Your task to perform on an android device: turn off translation in the chrome app Image 0: 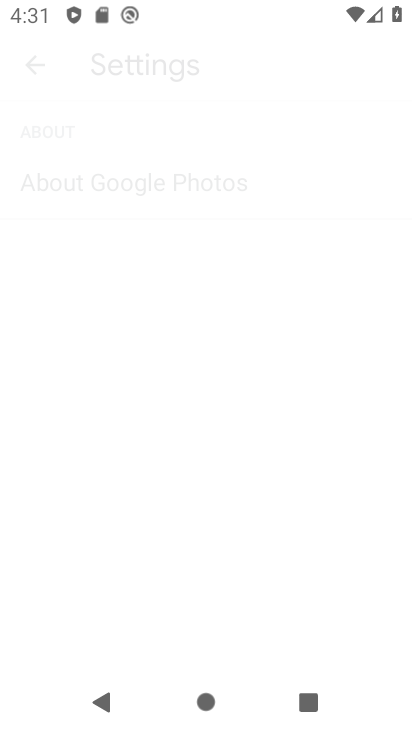
Step 0: click (65, 392)
Your task to perform on an android device: turn off translation in the chrome app Image 1: 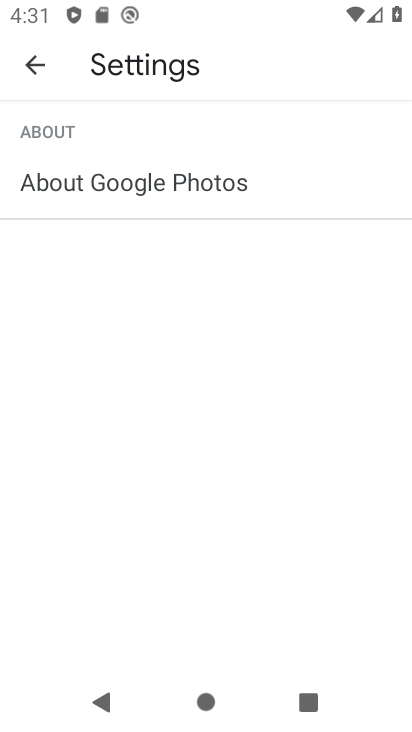
Step 1: press home button
Your task to perform on an android device: turn off translation in the chrome app Image 2: 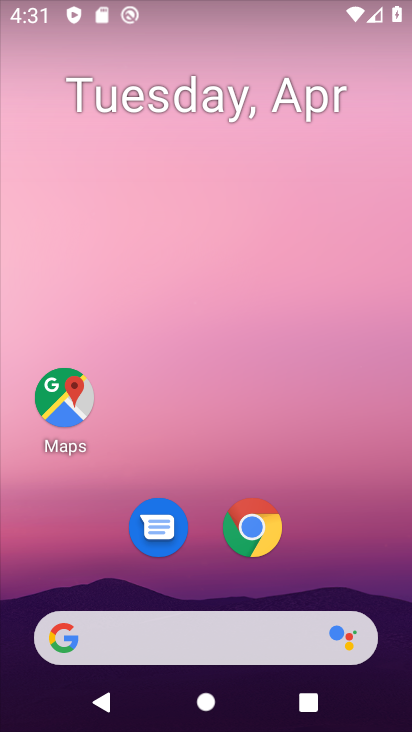
Step 2: click (223, 521)
Your task to perform on an android device: turn off translation in the chrome app Image 3: 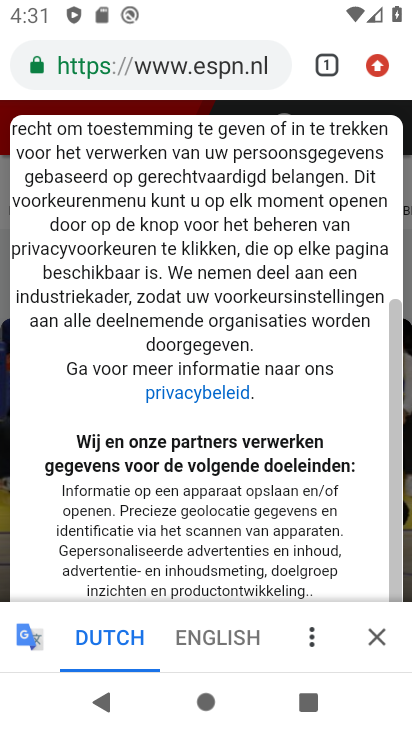
Step 3: click (383, 71)
Your task to perform on an android device: turn off translation in the chrome app Image 4: 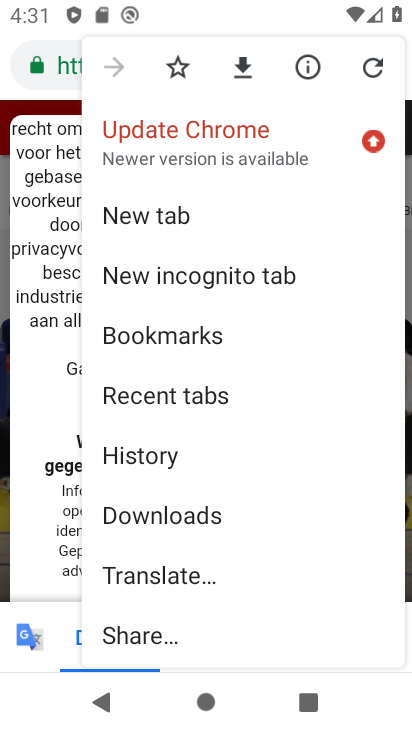
Step 4: drag from (262, 569) to (263, 57)
Your task to perform on an android device: turn off translation in the chrome app Image 5: 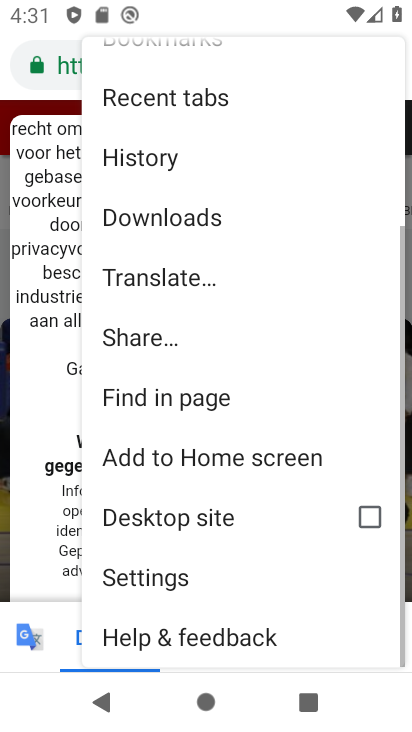
Step 5: click (237, 580)
Your task to perform on an android device: turn off translation in the chrome app Image 6: 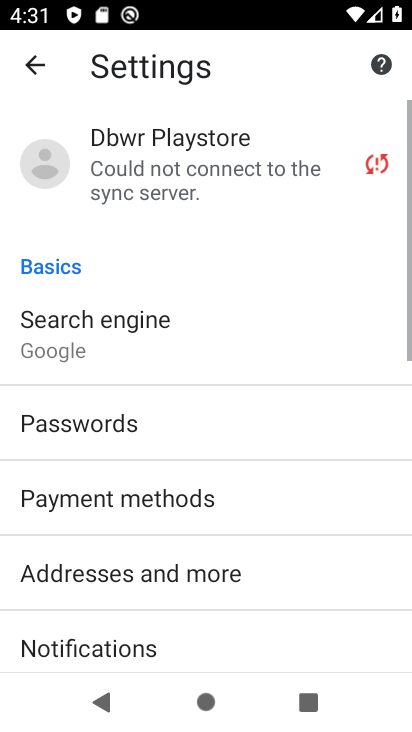
Step 6: drag from (225, 531) to (235, 91)
Your task to perform on an android device: turn off translation in the chrome app Image 7: 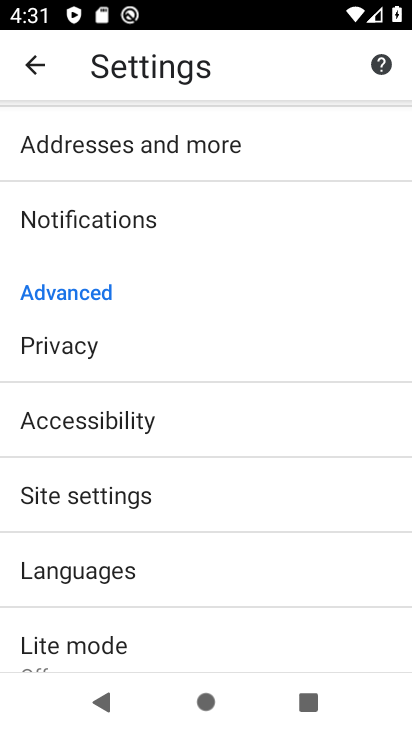
Step 7: click (177, 558)
Your task to perform on an android device: turn off translation in the chrome app Image 8: 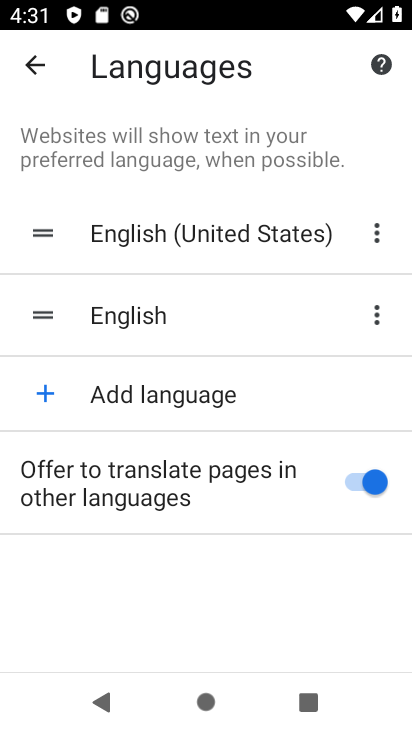
Step 8: click (366, 483)
Your task to perform on an android device: turn off translation in the chrome app Image 9: 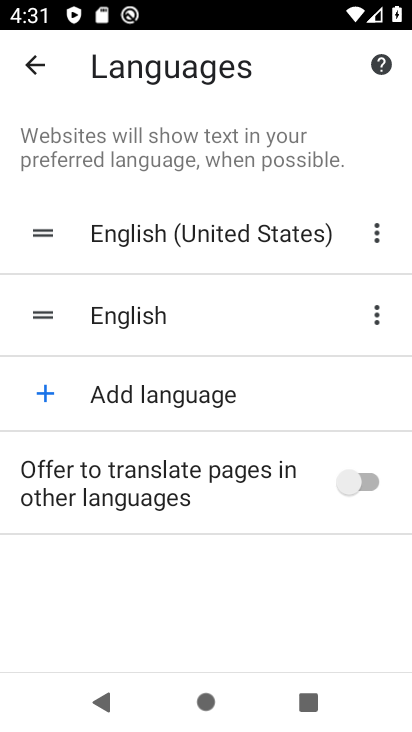
Step 9: task complete